Your task to perform on an android device: open wifi settings Image 0: 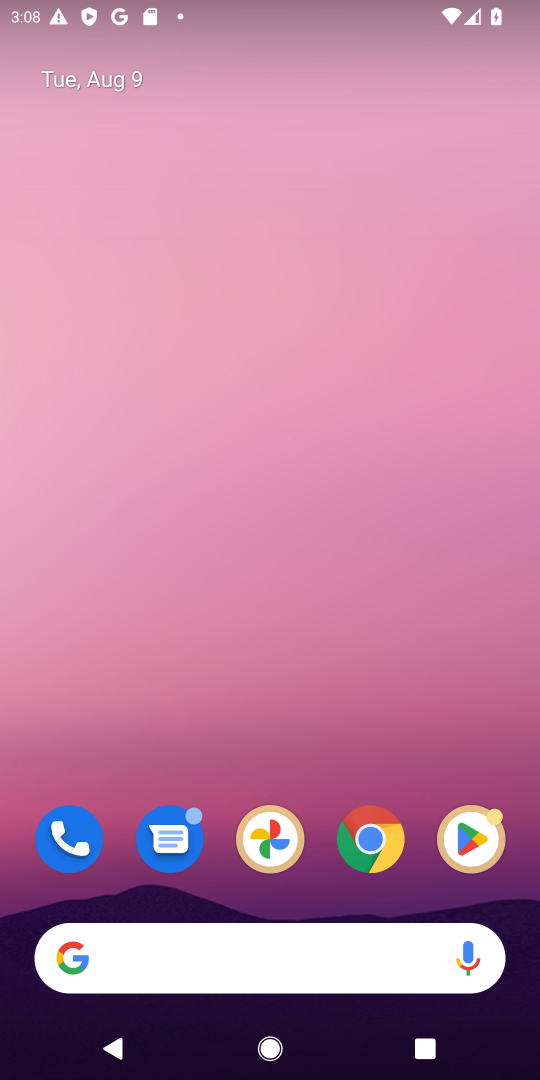
Step 0: press home button
Your task to perform on an android device: open wifi settings Image 1: 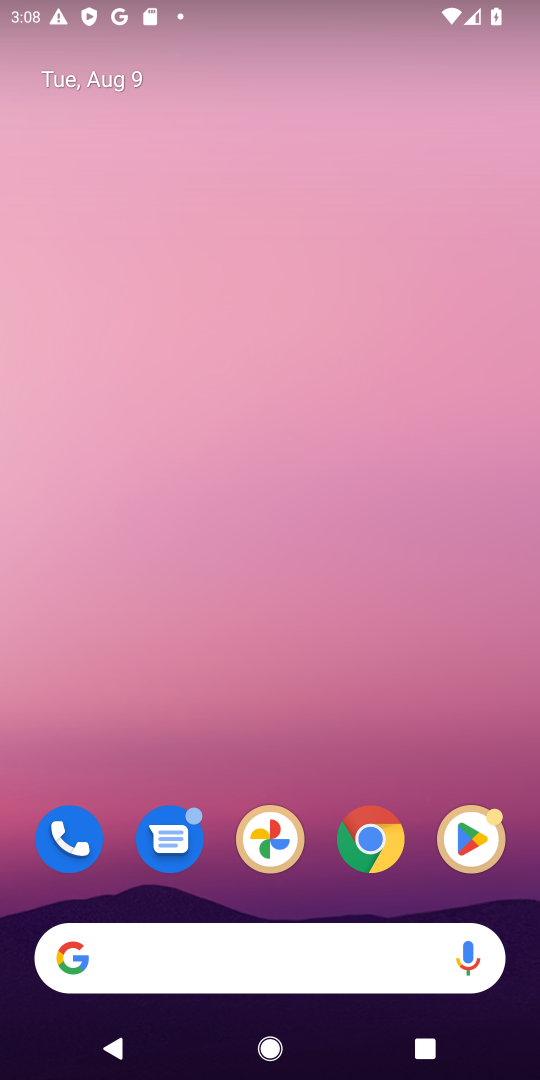
Step 1: drag from (292, 742) to (313, 78)
Your task to perform on an android device: open wifi settings Image 2: 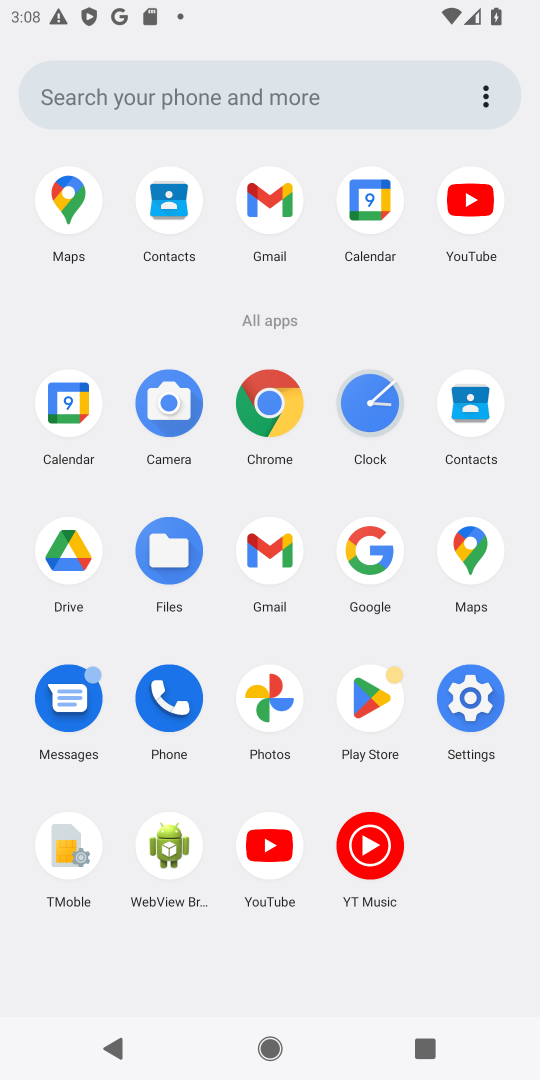
Step 2: click (480, 721)
Your task to perform on an android device: open wifi settings Image 3: 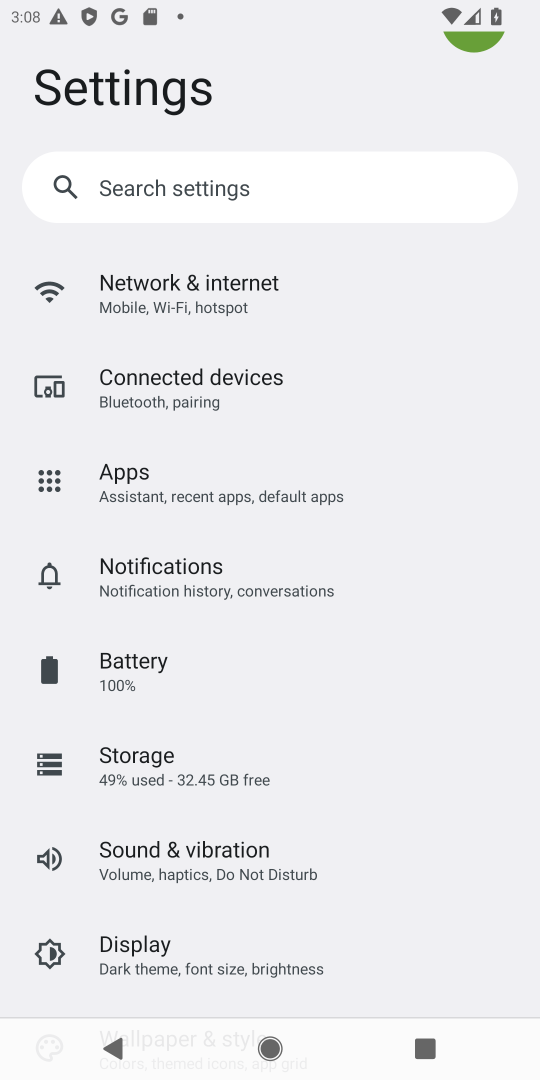
Step 3: click (198, 285)
Your task to perform on an android device: open wifi settings Image 4: 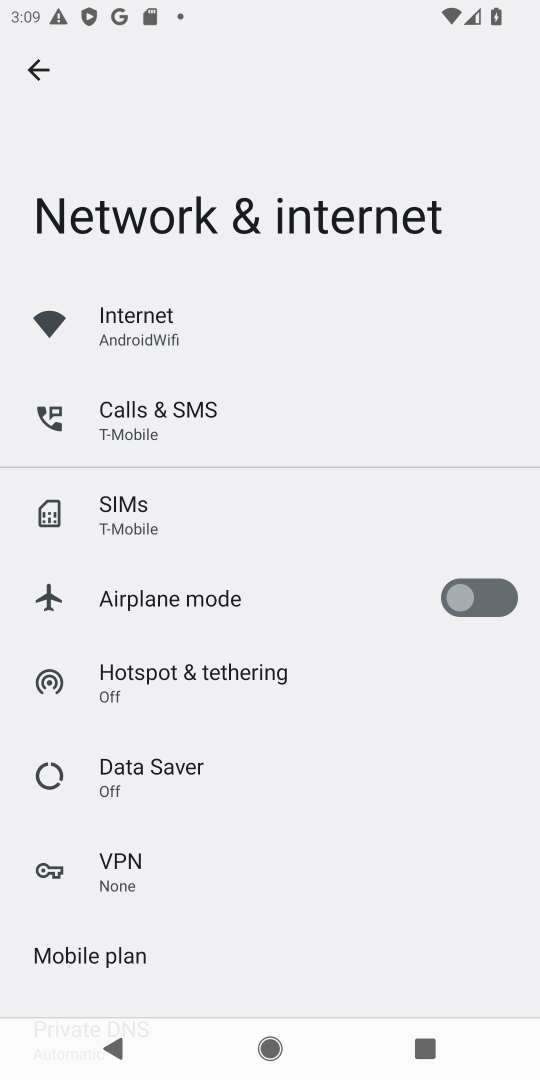
Step 4: click (161, 317)
Your task to perform on an android device: open wifi settings Image 5: 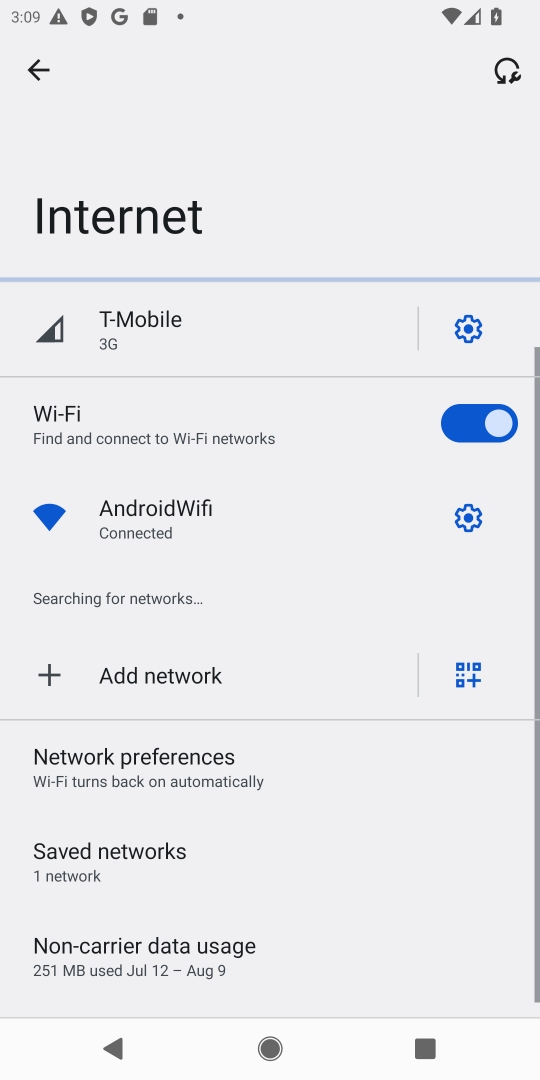
Step 5: click (475, 511)
Your task to perform on an android device: open wifi settings Image 6: 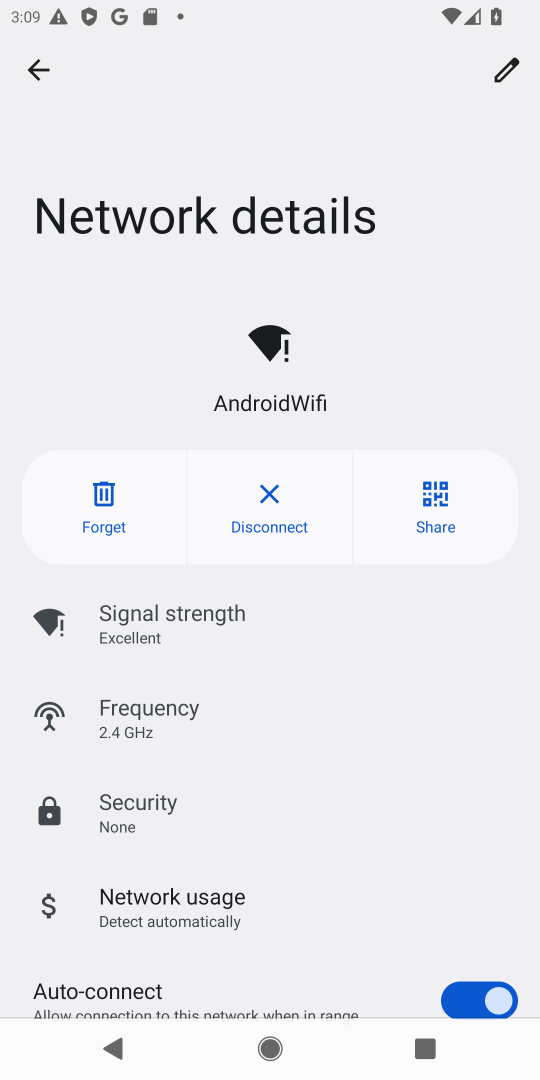
Step 6: task complete